Your task to perform on an android device: open wifi settings Image 0: 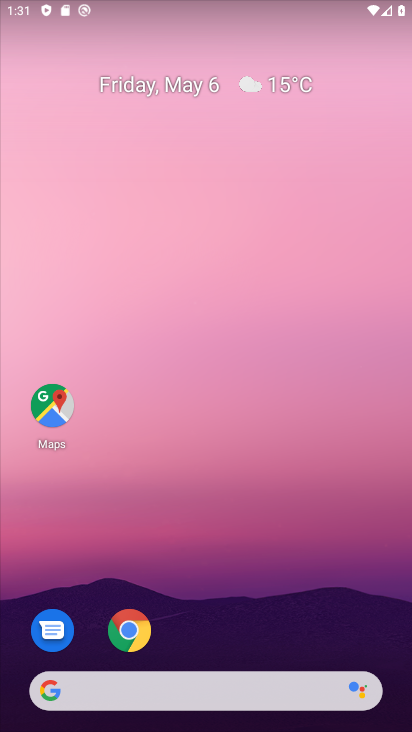
Step 0: drag from (206, 629) to (217, 21)
Your task to perform on an android device: open wifi settings Image 1: 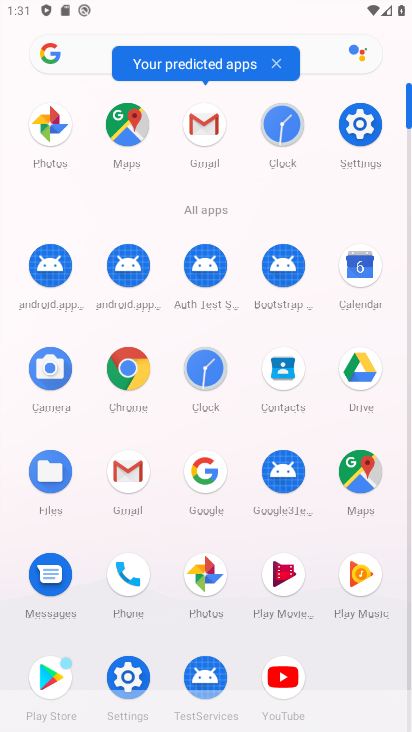
Step 1: click (353, 137)
Your task to perform on an android device: open wifi settings Image 2: 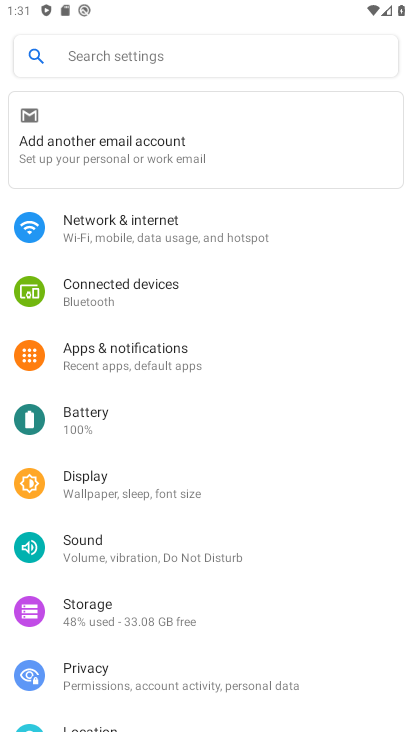
Step 2: click (217, 224)
Your task to perform on an android device: open wifi settings Image 3: 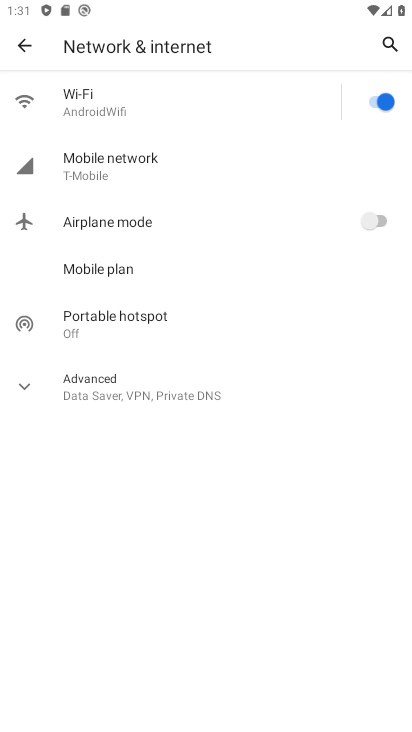
Step 3: click (180, 104)
Your task to perform on an android device: open wifi settings Image 4: 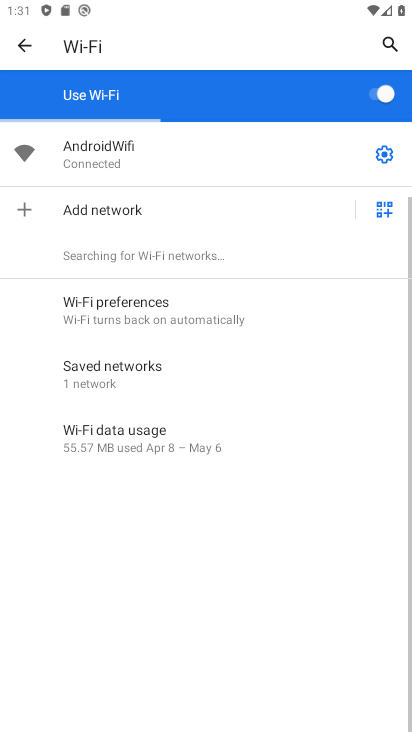
Step 4: task complete